Your task to perform on an android device: turn off airplane mode Image 0: 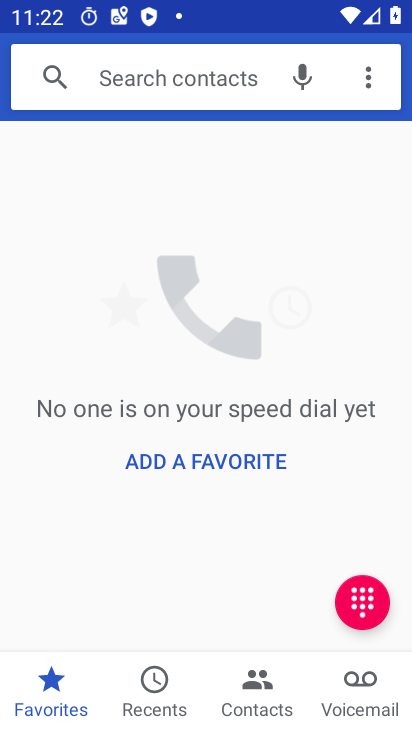
Step 0: press home button
Your task to perform on an android device: turn off airplane mode Image 1: 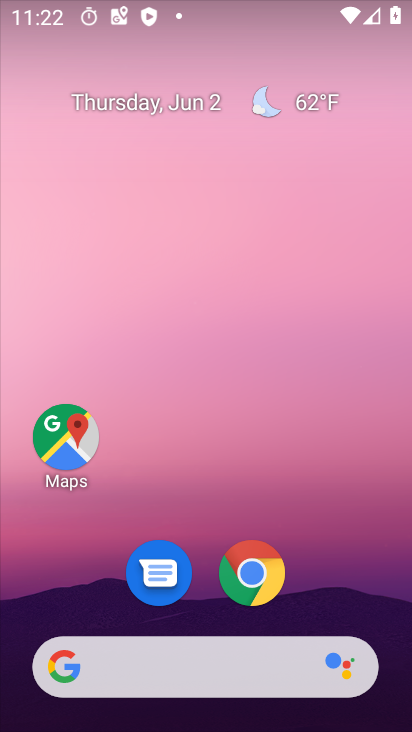
Step 1: drag from (156, 669) to (232, 33)
Your task to perform on an android device: turn off airplane mode Image 2: 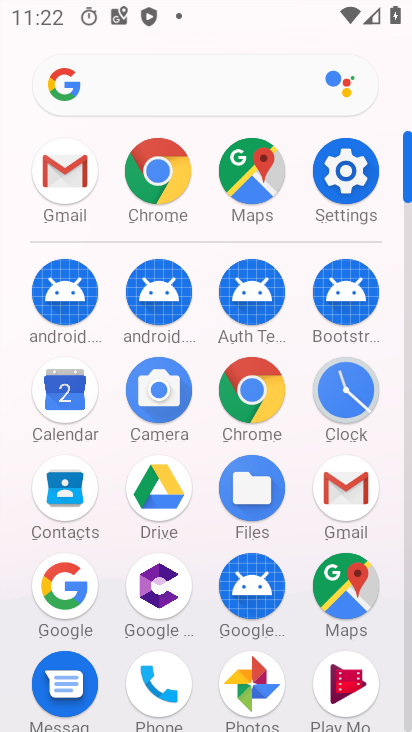
Step 2: click (365, 173)
Your task to perform on an android device: turn off airplane mode Image 3: 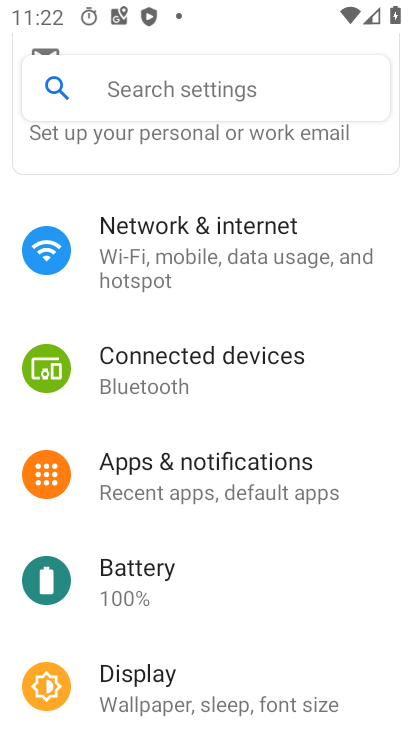
Step 3: click (300, 252)
Your task to perform on an android device: turn off airplane mode Image 4: 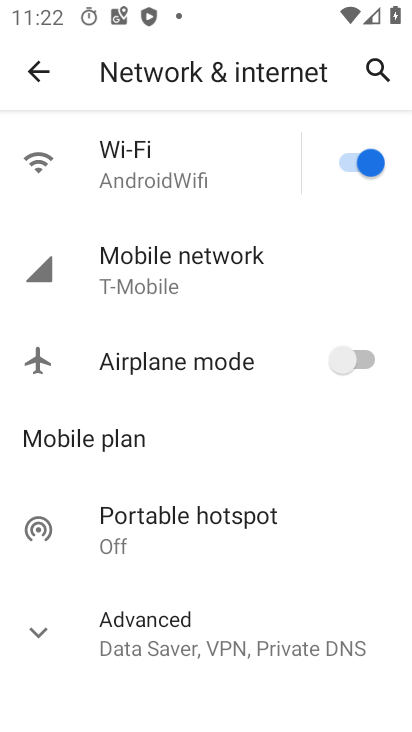
Step 4: task complete